Your task to perform on an android device: Go to internet settings Image 0: 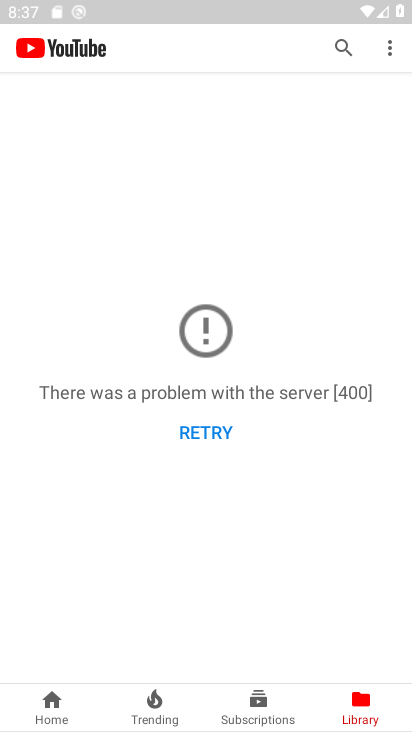
Step 0: press back button
Your task to perform on an android device: Go to internet settings Image 1: 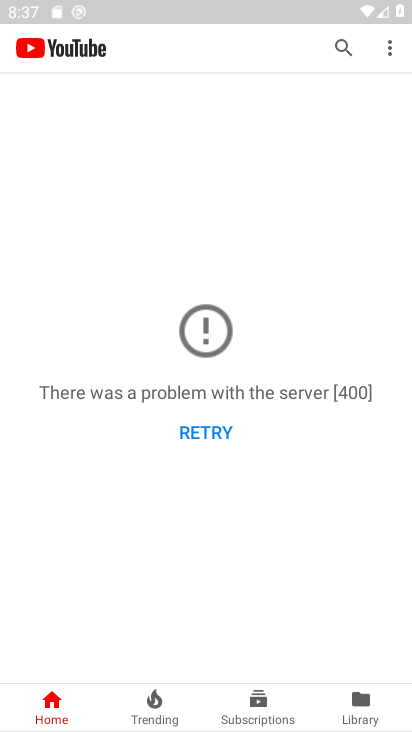
Step 1: press home button
Your task to perform on an android device: Go to internet settings Image 2: 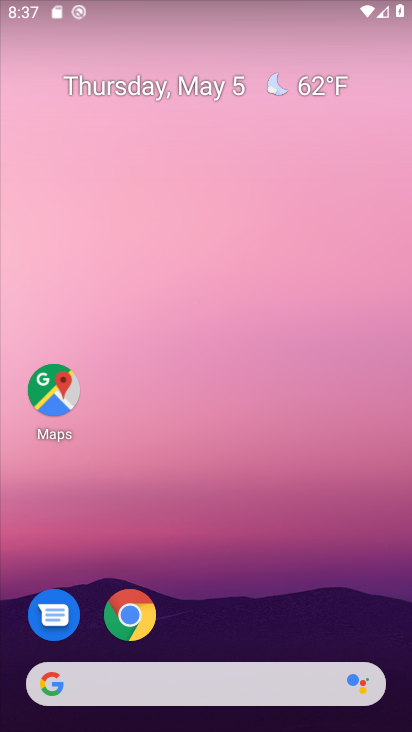
Step 2: drag from (226, 547) to (229, 265)
Your task to perform on an android device: Go to internet settings Image 3: 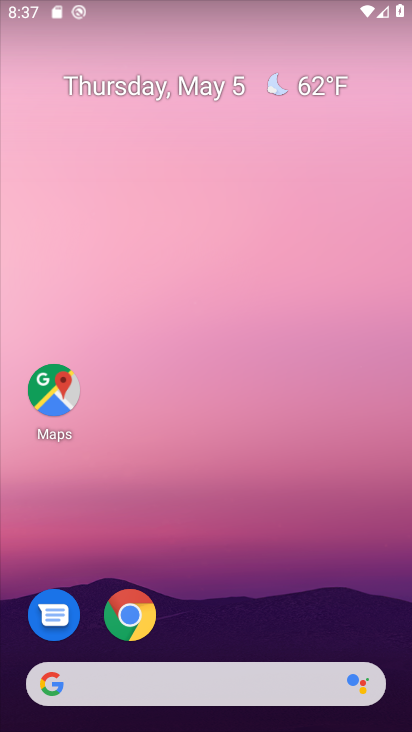
Step 3: drag from (223, 665) to (213, 230)
Your task to perform on an android device: Go to internet settings Image 4: 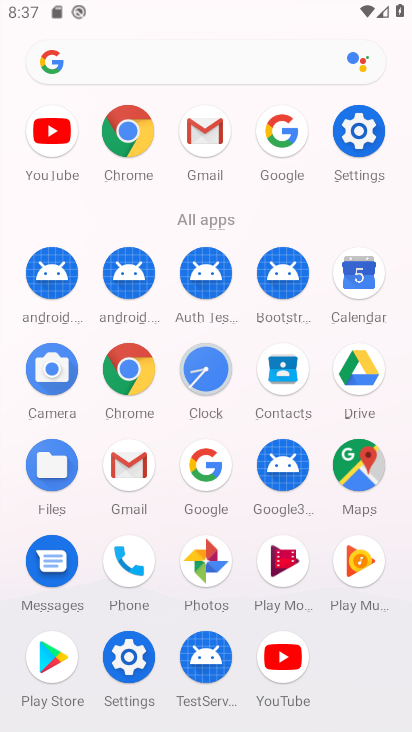
Step 4: click (368, 125)
Your task to perform on an android device: Go to internet settings Image 5: 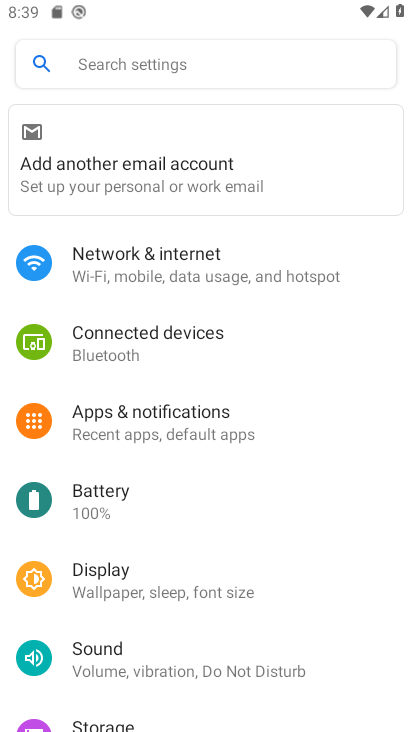
Step 5: click (158, 266)
Your task to perform on an android device: Go to internet settings Image 6: 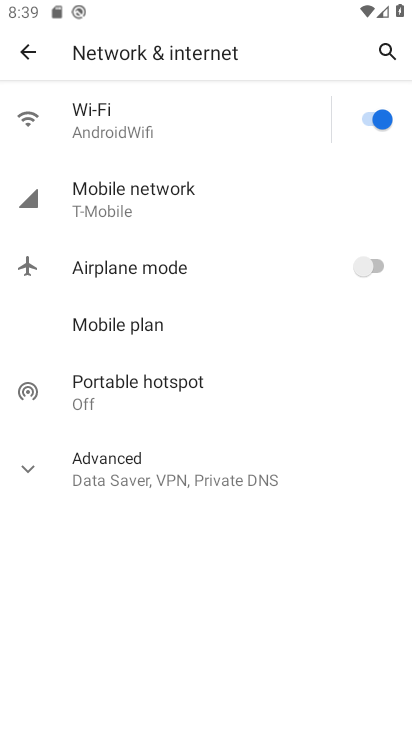
Step 6: click (38, 465)
Your task to perform on an android device: Go to internet settings Image 7: 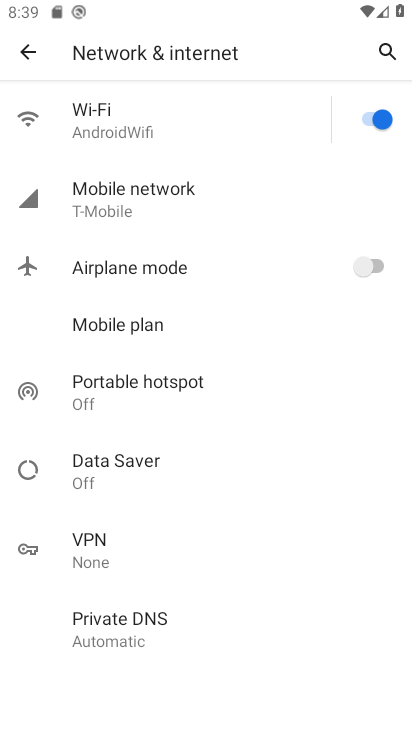
Step 7: task complete